Your task to perform on an android device: star an email in the gmail app Image 0: 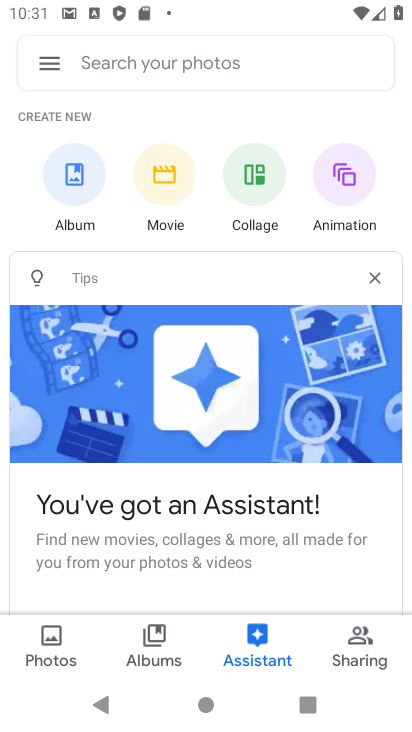
Step 0: press home button
Your task to perform on an android device: star an email in the gmail app Image 1: 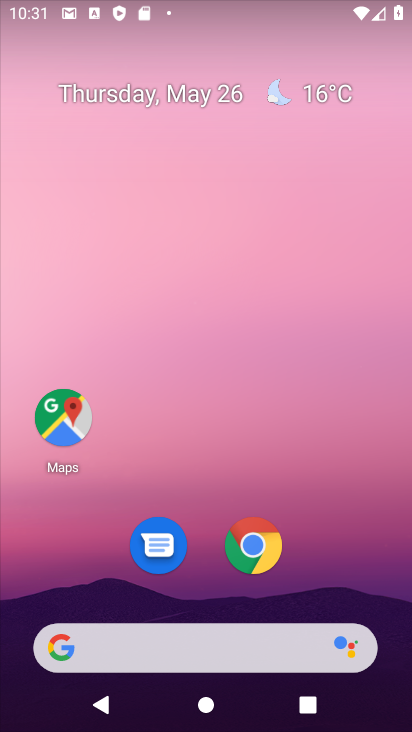
Step 1: drag from (221, 602) to (232, 3)
Your task to perform on an android device: star an email in the gmail app Image 2: 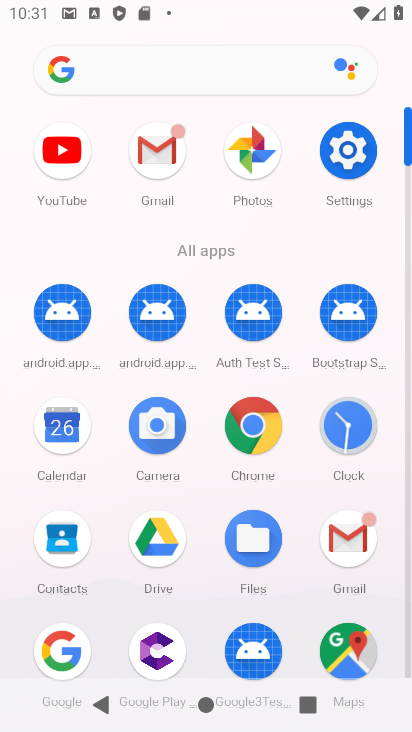
Step 2: click (347, 546)
Your task to perform on an android device: star an email in the gmail app Image 3: 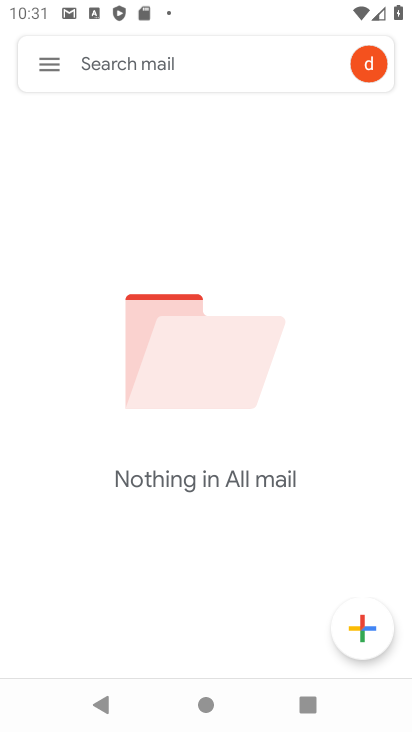
Step 3: click (37, 66)
Your task to perform on an android device: star an email in the gmail app Image 4: 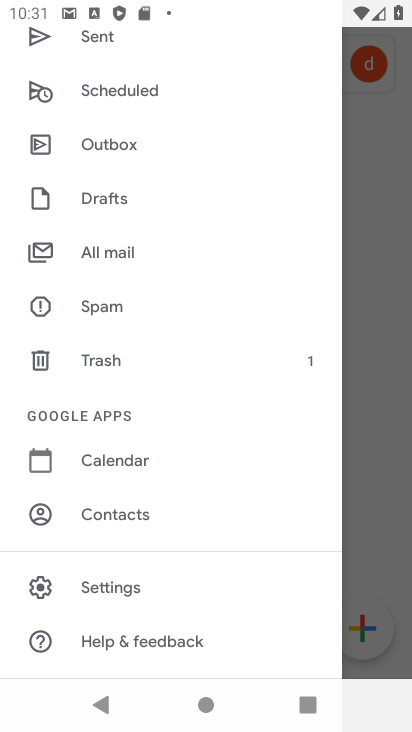
Step 4: click (108, 252)
Your task to perform on an android device: star an email in the gmail app Image 5: 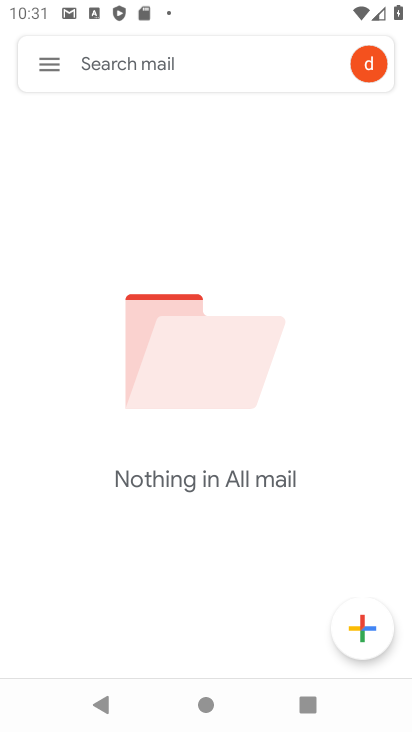
Step 5: task complete